Your task to perform on an android device: Is it going to rain tomorrow? Image 0: 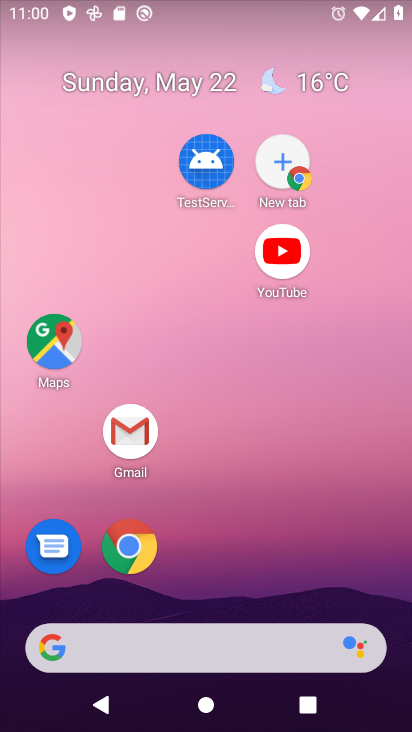
Step 0: drag from (266, 367) to (275, 131)
Your task to perform on an android device: Is it going to rain tomorrow? Image 1: 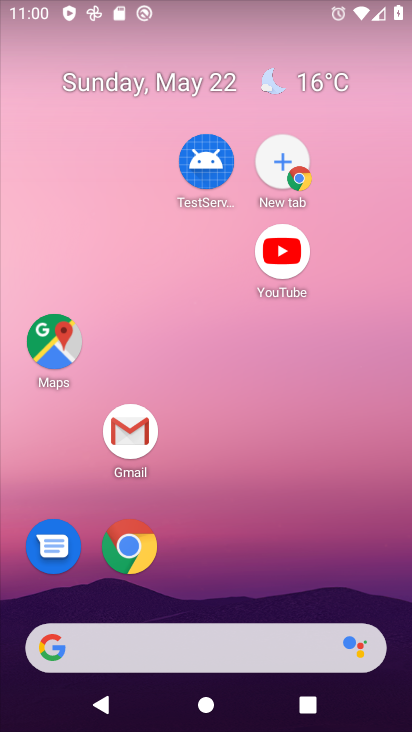
Step 1: drag from (273, 676) to (175, 57)
Your task to perform on an android device: Is it going to rain tomorrow? Image 2: 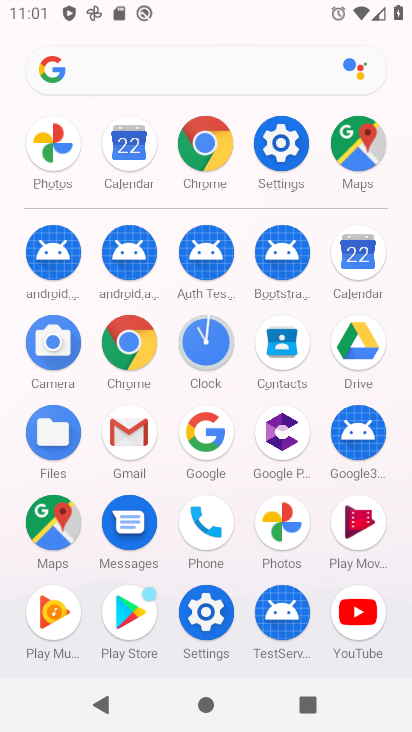
Step 2: press back button
Your task to perform on an android device: Is it going to rain tomorrow? Image 3: 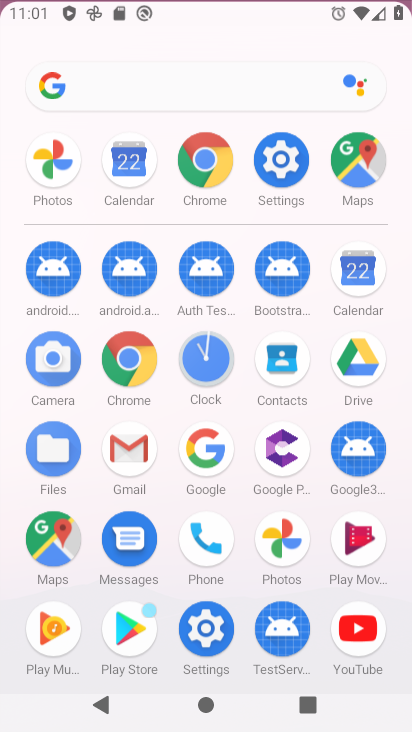
Step 3: press back button
Your task to perform on an android device: Is it going to rain tomorrow? Image 4: 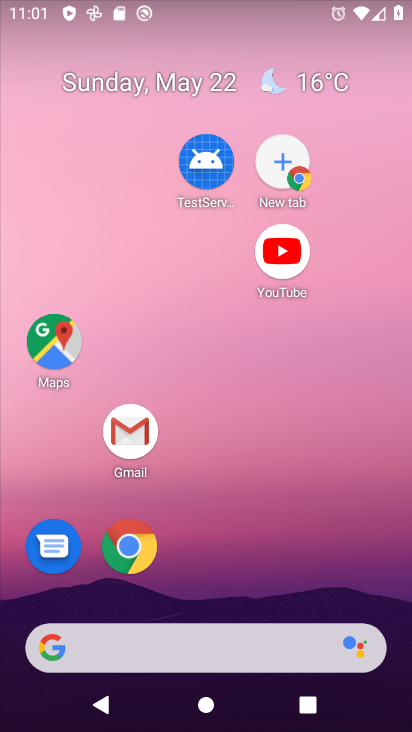
Step 4: press back button
Your task to perform on an android device: Is it going to rain tomorrow? Image 5: 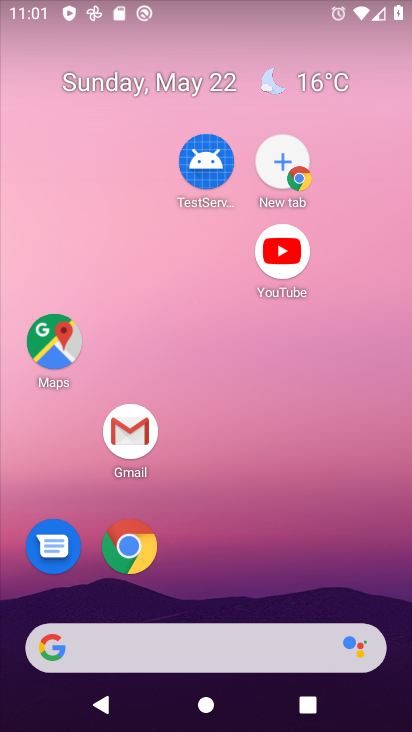
Step 5: press back button
Your task to perform on an android device: Is it going to rain tomorrow? Image 6: 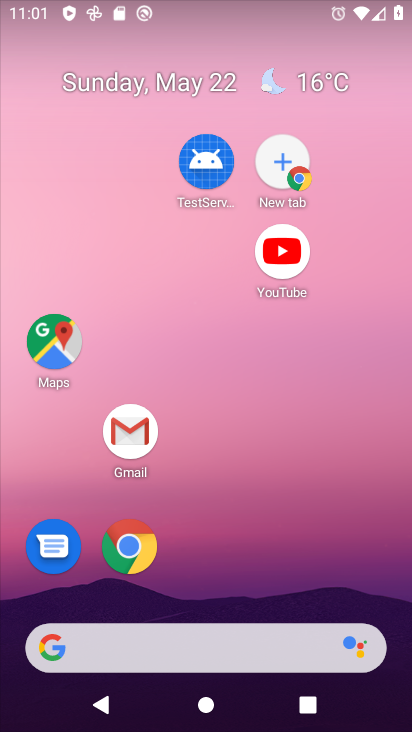
Step 6: drag from (1, 190) to (396, 431)
Your task to perform on an android device: Is it going to rain tomorrow? Image 7: 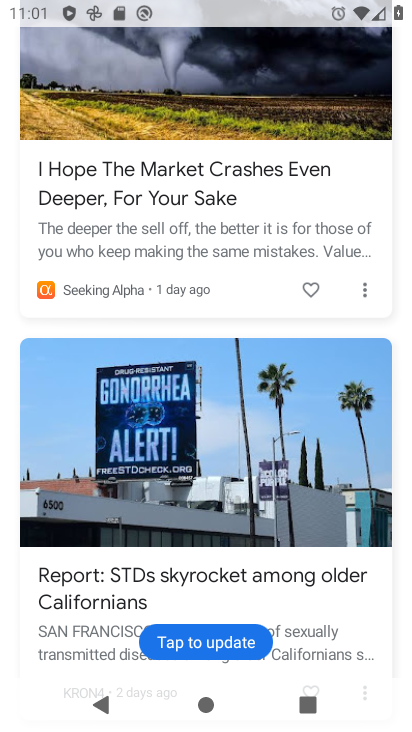
Step 7: drag from (179, 121) to (145, 425)
Your task to perform on an android device: Is it going to rain tomorrow? Image 8: 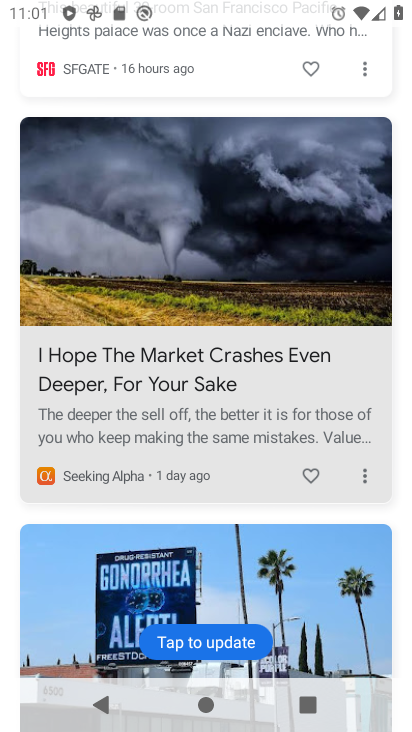
Step 8: drag from (126, 171) to (167, 542)
Your task to perform on an android device: Is it going to rain tomorrow? Image 9: 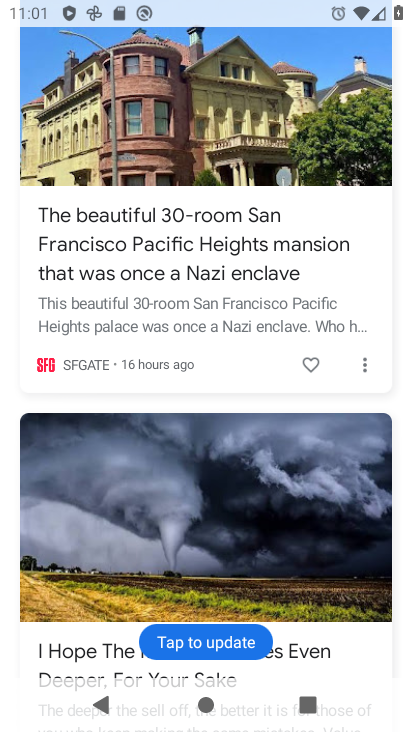
Step 9: drag from (157, 235) to (196, 729)
Your task to perform on an android device: Is it going to rain tomorrow? Image 10: 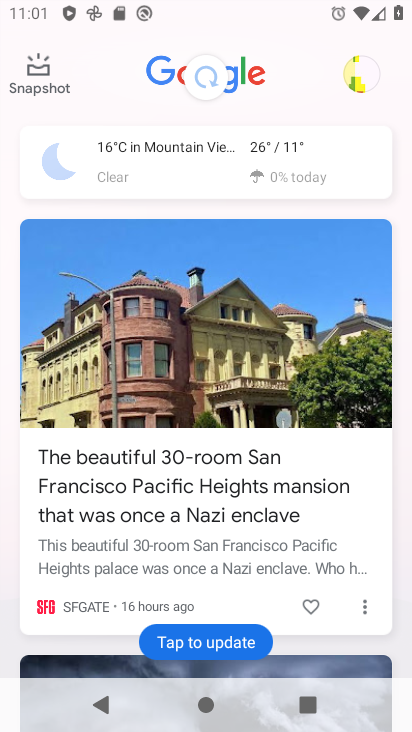
Step 10: drag from (225, 578) to (230, 618)
Your task to perform on an android device: Is it going to rain tomorrow? Image 11: 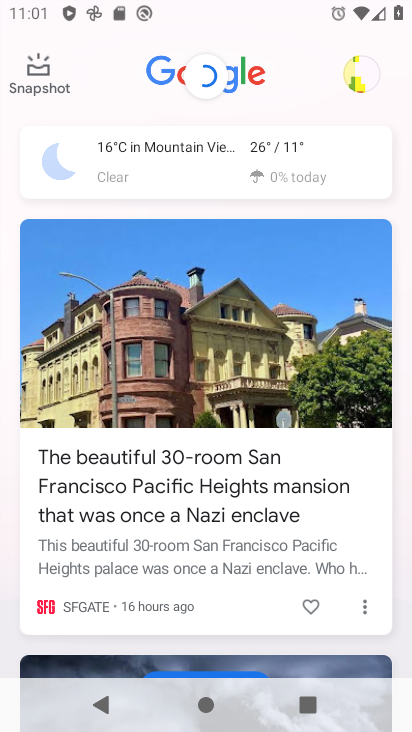
Step 11: click (155, 535)
Your task to perform on an android device: Is it going to rain tomorrow? Image 12: 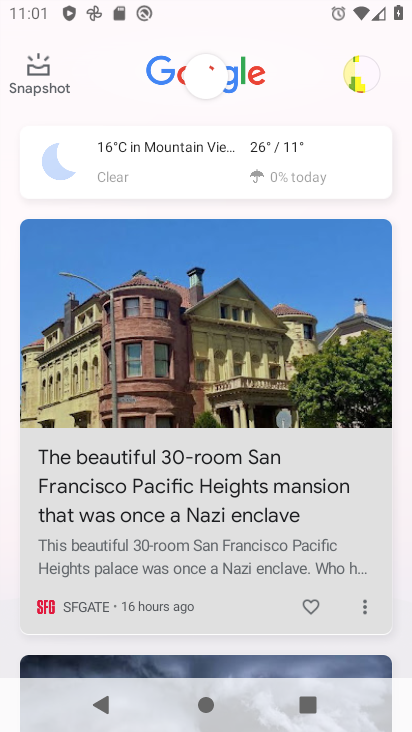
Step 12: click (169, 165)
Your task to perform on an android device: Is it going to rain tomorrow? Image 13: 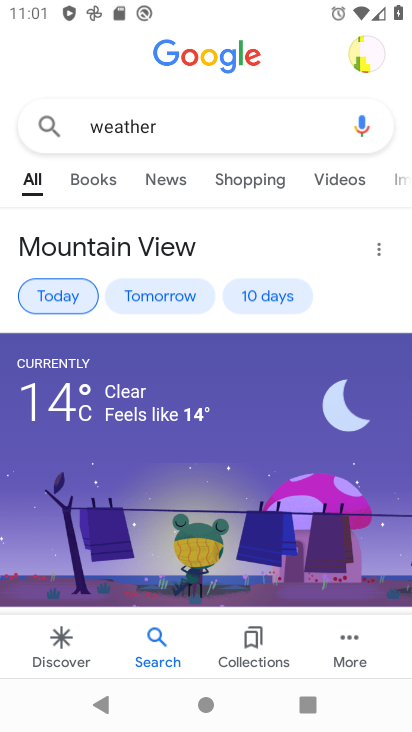
Step 13: click (139, 290)
Your task to perform on an android device: Is it going to rain tomorrow? Image 14: 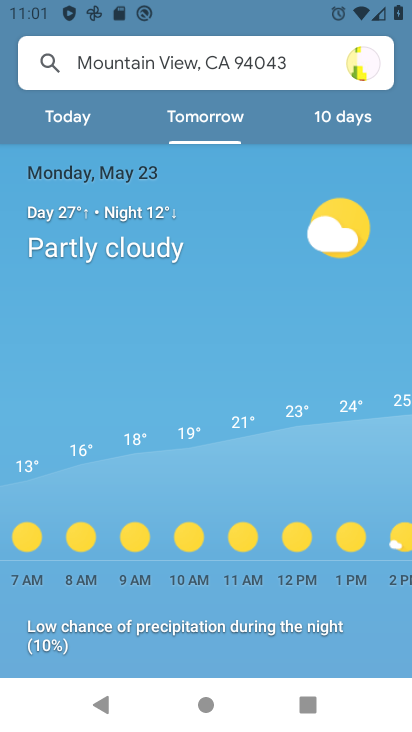
Step 14: task complete